Your task to perform on an android device: remove spam from my inbox in the gmail app Image 0: 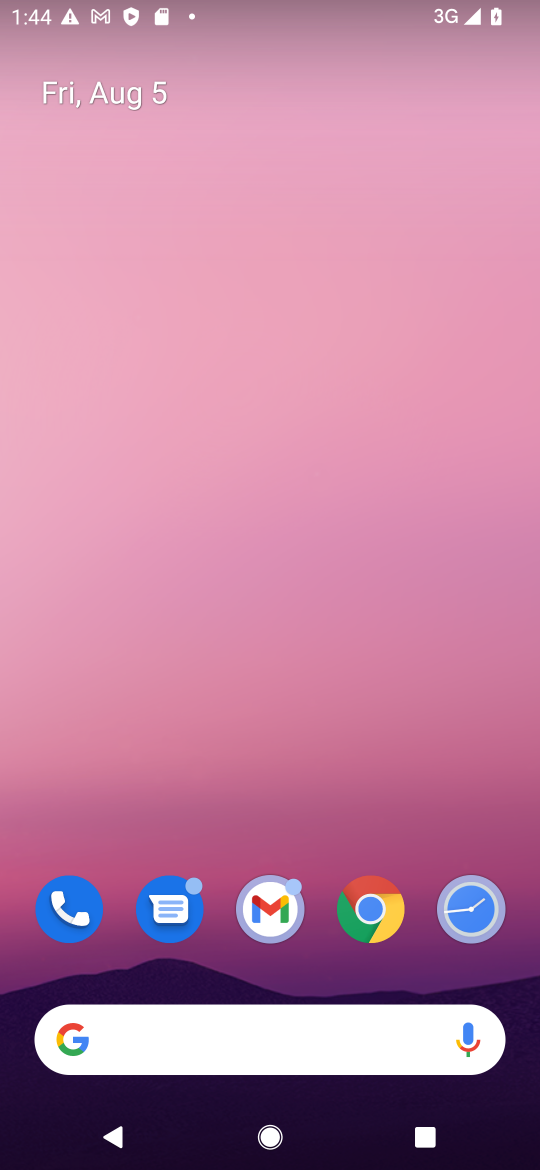
Step 0: click (279, 900)
Your task to perform on an android device: remove spam from my inbox in the gmail app Image 1: 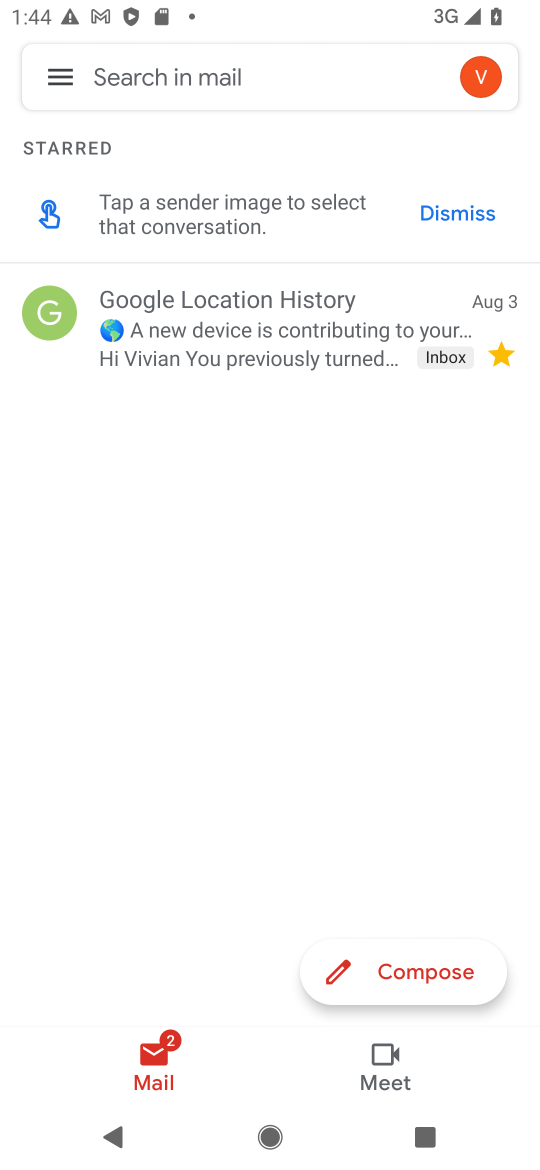
Step 1: click (59, 72)
Your task to perform on an android device: remove spam from my inbox in the gmail app Image 2: 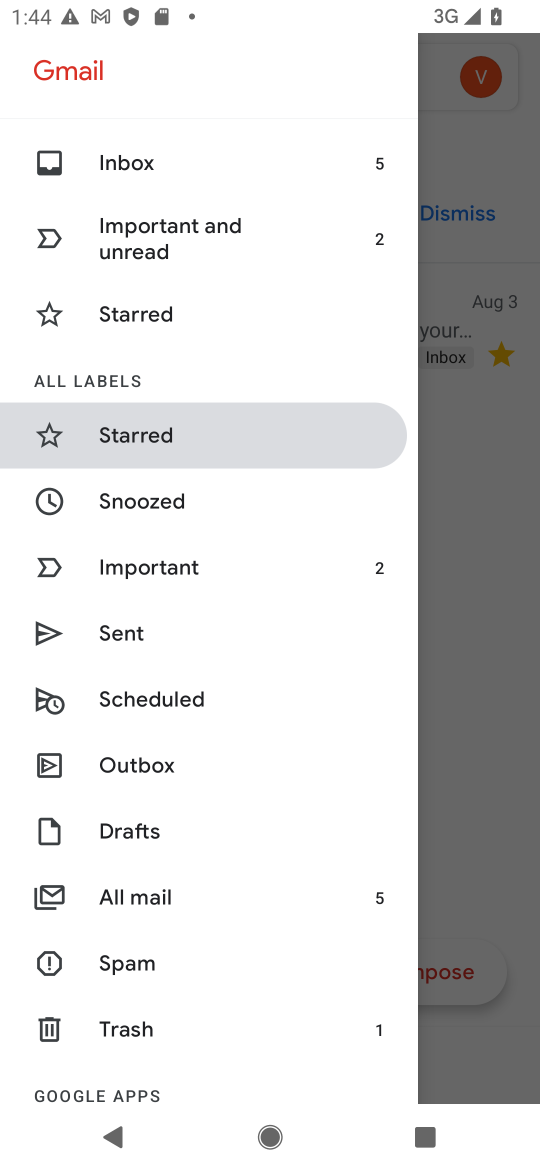
Step 2: click (127, 961)
Your task to perform on an android device: remove spam from my inbox in the gmail app Image 3: 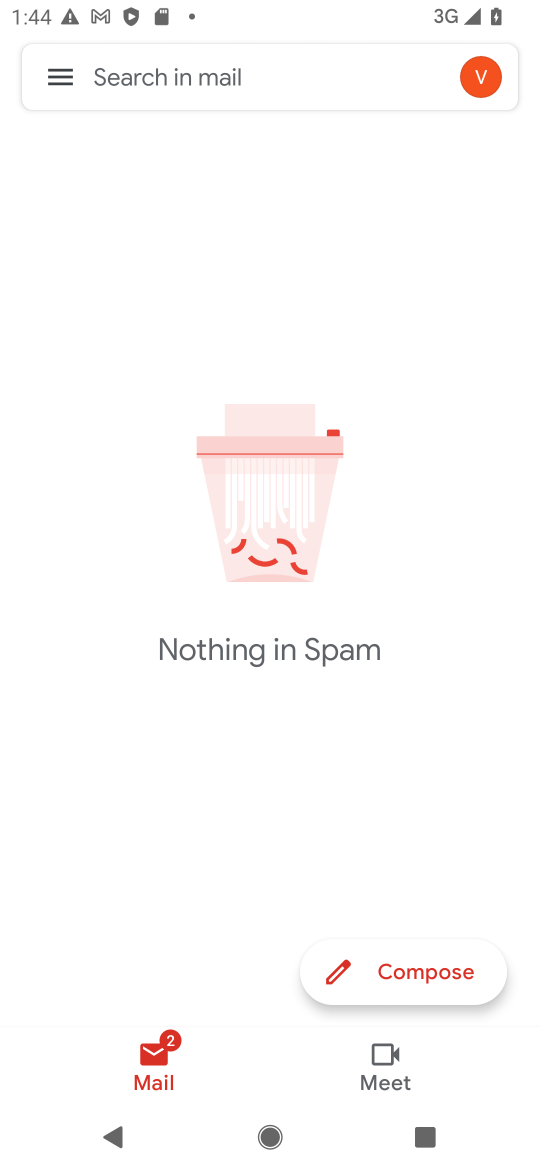
Step 3: task complete